Your task to perform on an android device: open a new tab in the chrome app Image 0: 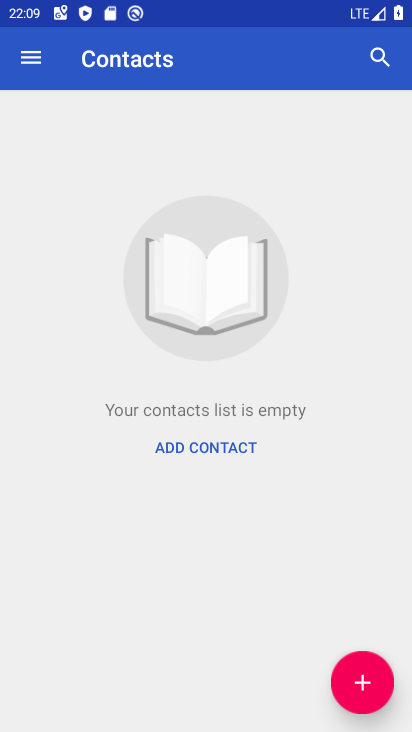
Step 0: drag from (288, 607) to (284, 321)
Your task to perform on an android device: open a new tab in the chrome app Image 1: 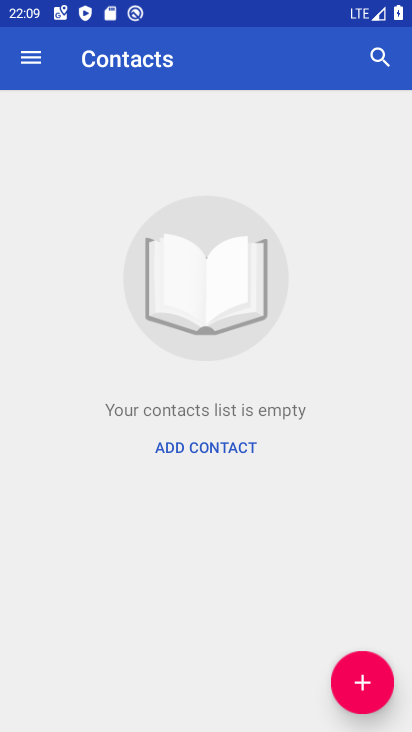
Step 1: press home button
Your task to perform on an android device: open a new tab in the chrome app Image 2: 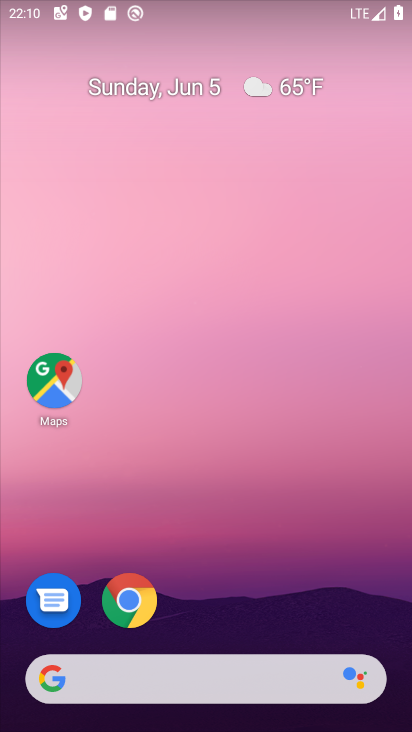
Step 2: drag from (289, 602) to (290, 190)
Your task to perform on an android device: open a new tab in the chrome app Image 3: 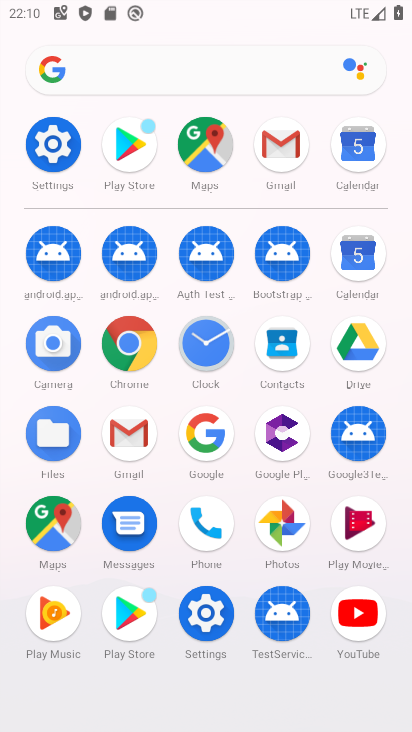
Step 3: click (135, 357)
Your task to perform on an android device: open a new tab in the chrome app Image 4: 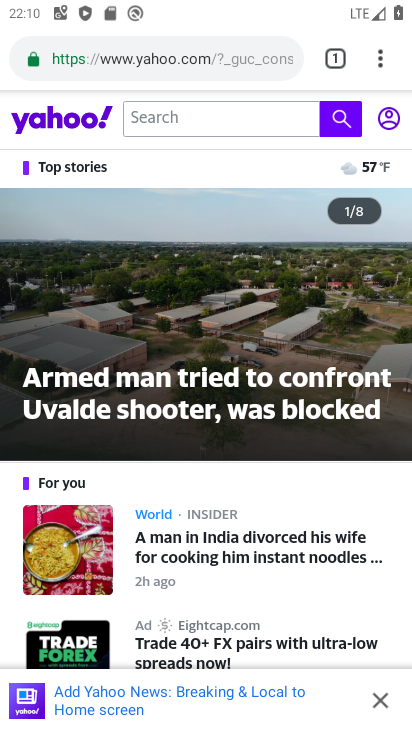
Step 4: task complete